Your task to perform on an android device: delete location history Image 0: 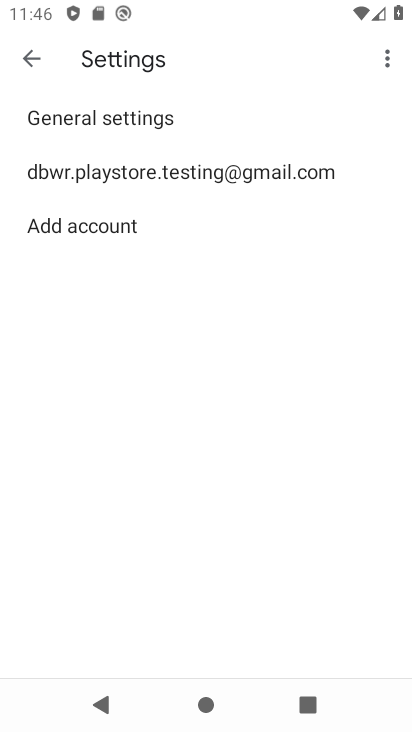
Step 0: press home button
Your task to perform on an android device: delete location history Image 1: 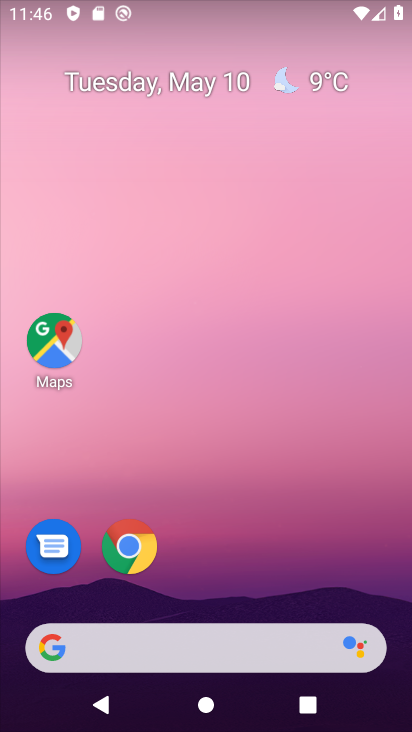
Step 1: drag from (214, 593) to (259, 23)
Your task to perform on an android device: delete location history Image 2: 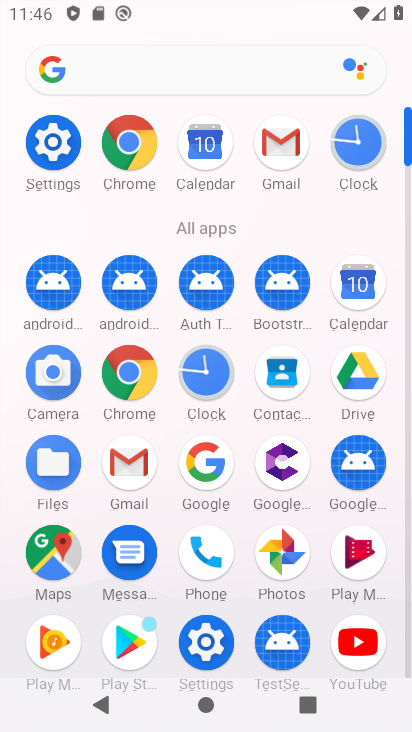
Step 2: click (37, 141)
Your task to perform on an android device: delete location history Image 3: 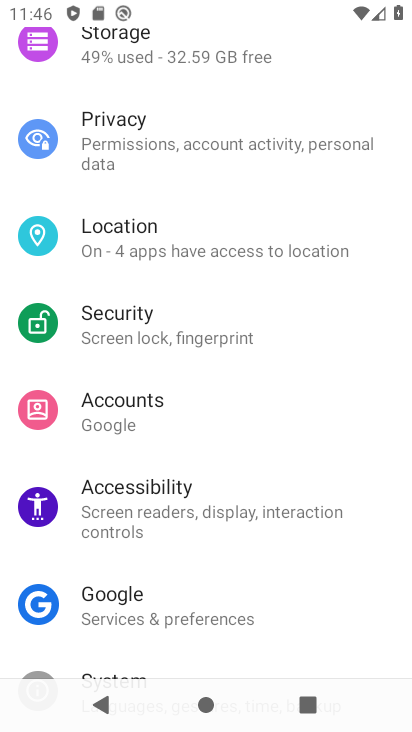
Step 3: click (177, 261)
Your task to perform on an android device: delete location history Image 4: 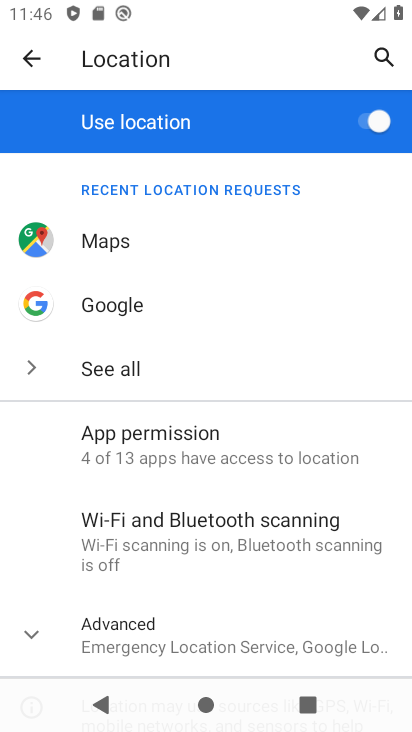
Step 4: click (128, 625)
Your task to perform on an android device: delete location history Image 5: 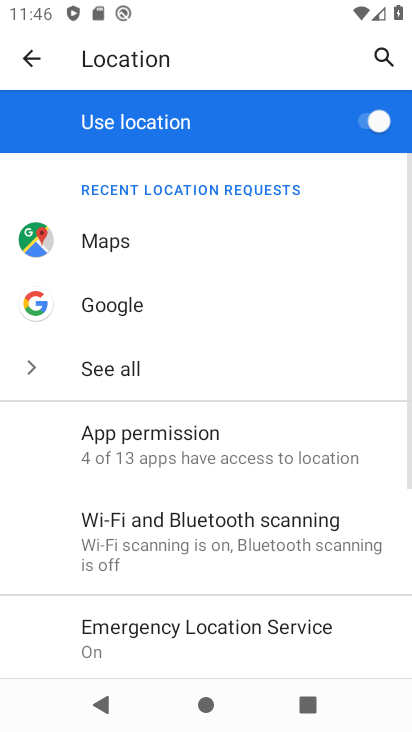
Step 5: drag from (165, 565) to (306, 145)
Your task to perform on an android device: delete location history Image 6: 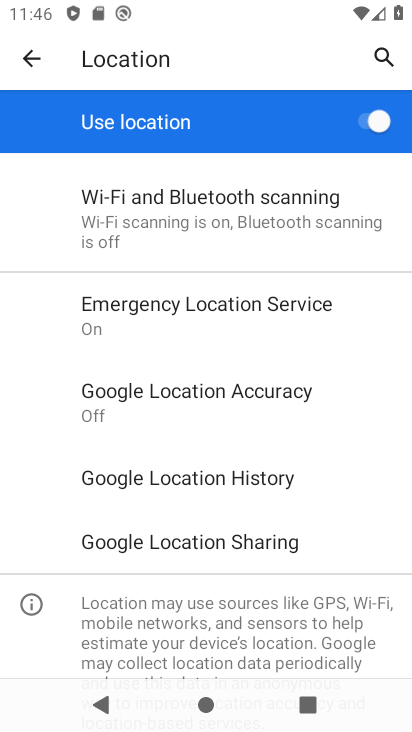
Step 6: click (166, 481)
Your task to perform on an android device: delete location history Image 7: 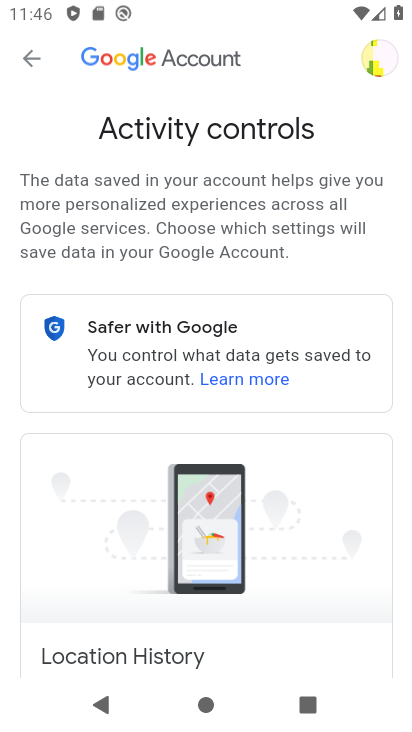
Step 7: drag from (203, 616) to (285, 187)
Your task to perform on an android device: delete location history Image 8: 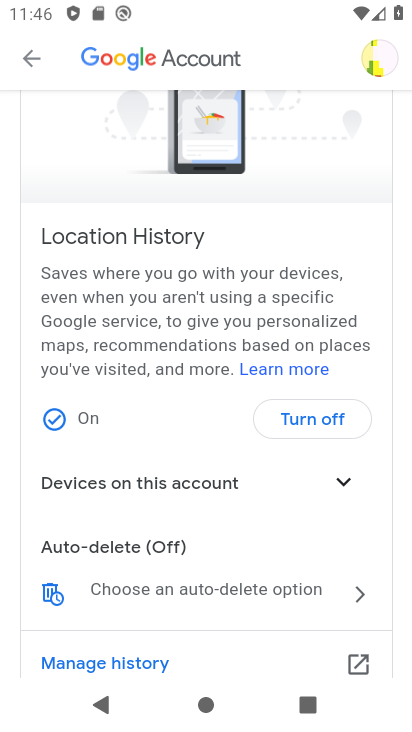
Step 8: drag from (154, 611) to (247, 290)
Your task to perform on an android device: delete location history Image 9: 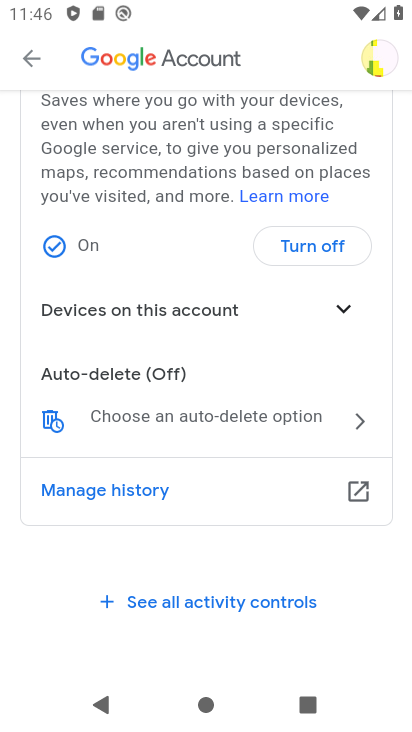
Step 9: click (126, 490)
Your task to perform on an android device: delete location history Image 10: 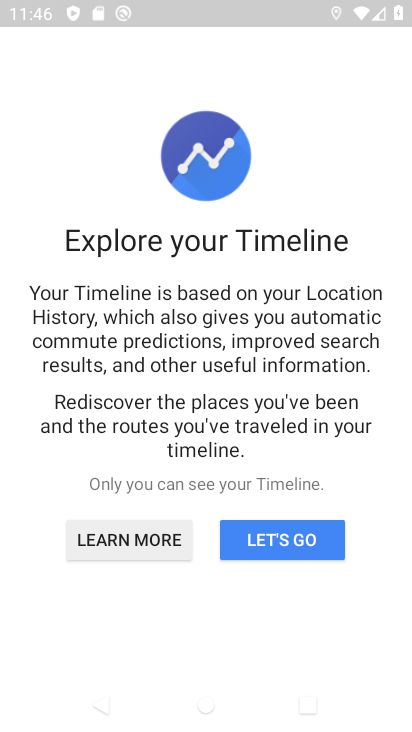
Step 10: click (306, 540)
Your task to perform on an android device: delete location history Image 11: 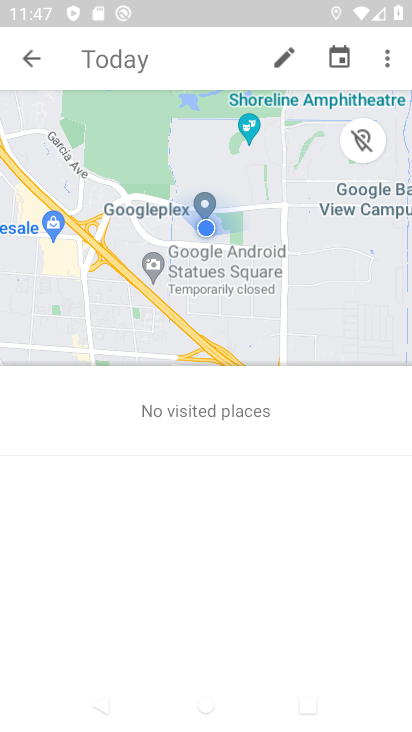
Step 11: task complete